Your task to perform on an android device: find photos in the google photos app Image 0: 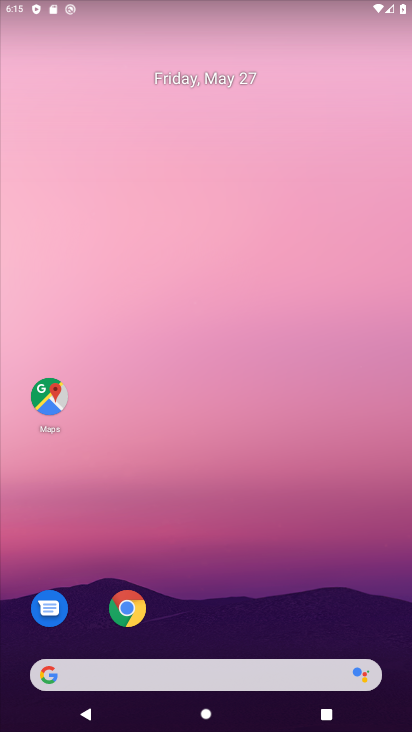
Step 0: press home button
Your task to perform on an android device: find photos in the google photos app Image 1: 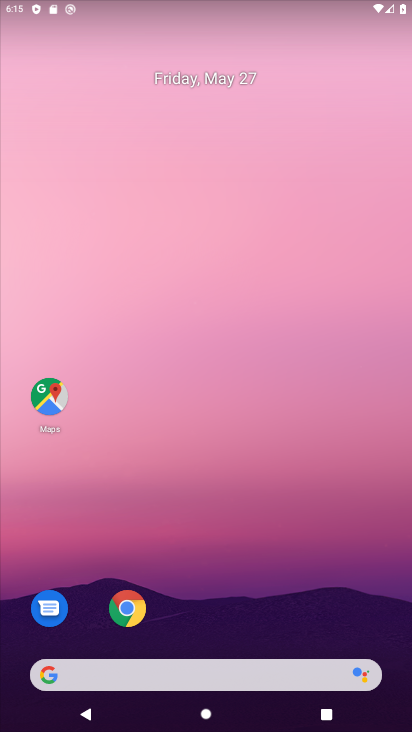
Step 1: drag from (216, 612) to (232, 84)
Your task to perform on an android device: find photos in the google photos app Image 2: 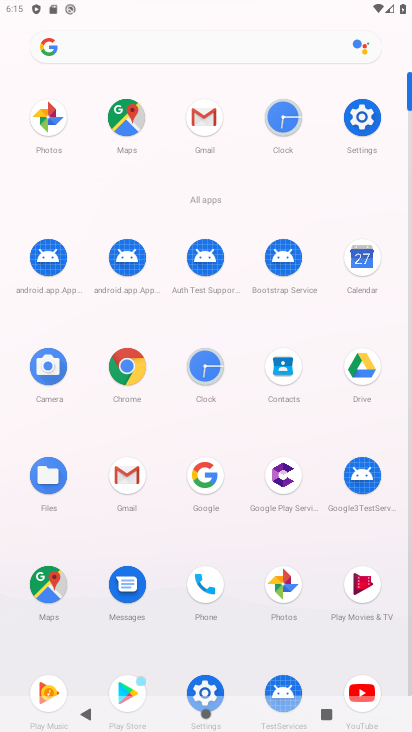
Step 2: click (276, 576)
Your task to perform on an android device: find photos in the google photos app Image 3: 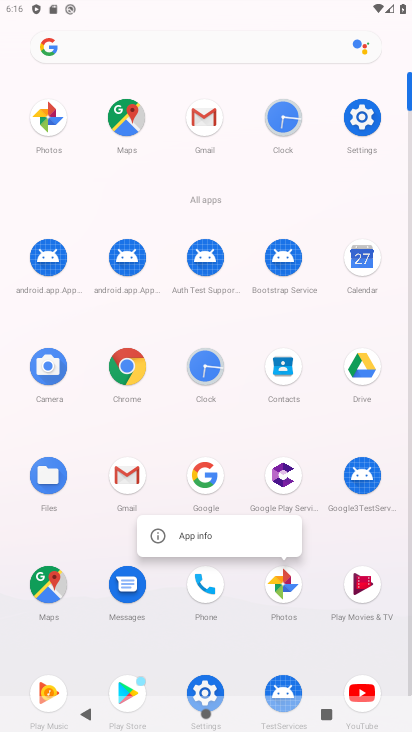
Step 3: click (284, 577)
Your task to perform on an android device: find photos in the google photos app Image 4: 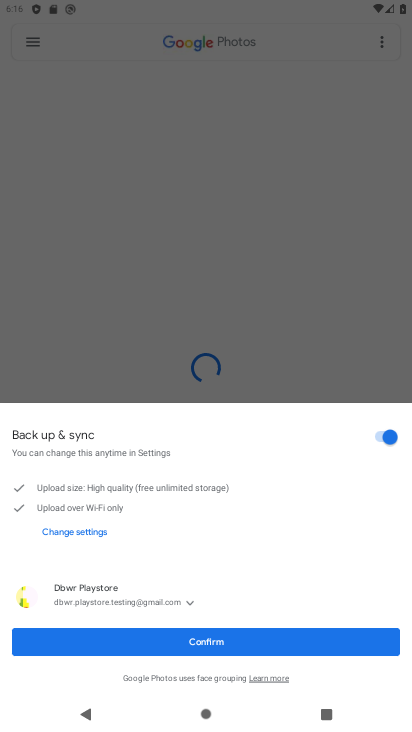
Step 4: click (206, 641)
Your task to perform on an android device: find photos in the google photos app Image 5: 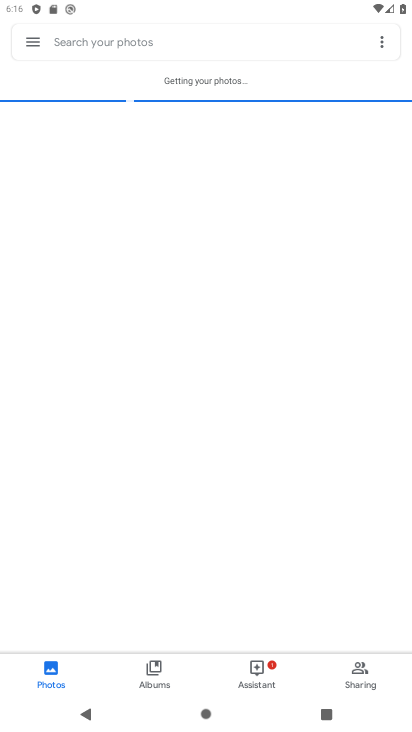
Step 5: task complete